Your task to perform on an android device: Open my contact list Image 0: 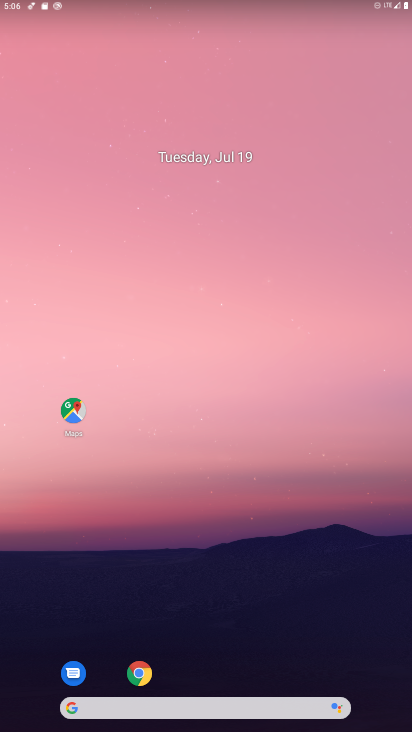
Step 0: press home button
Your task to perform on an android device: Open my contact list Image 1: 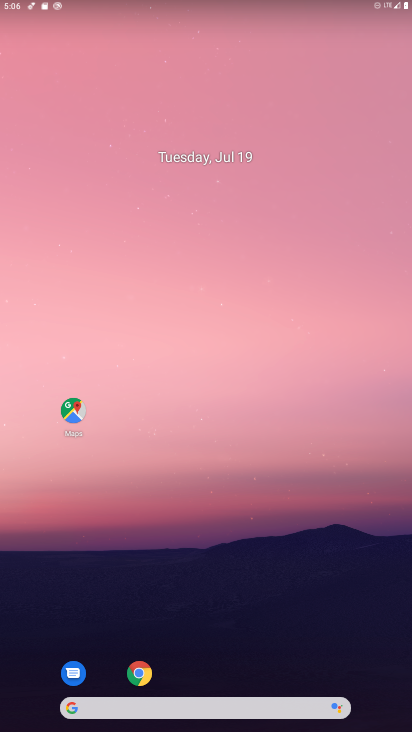
Step 1: click (230, 90)
Your task to perform on an android device: Open my contact list Image 2: 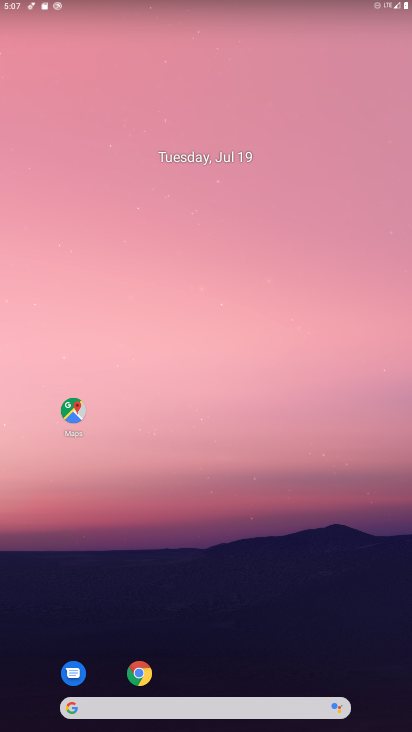
Step 2: drag from (220, 672) to (212, 293)
Your task to perform on an android device: Open my contact list Image 3: 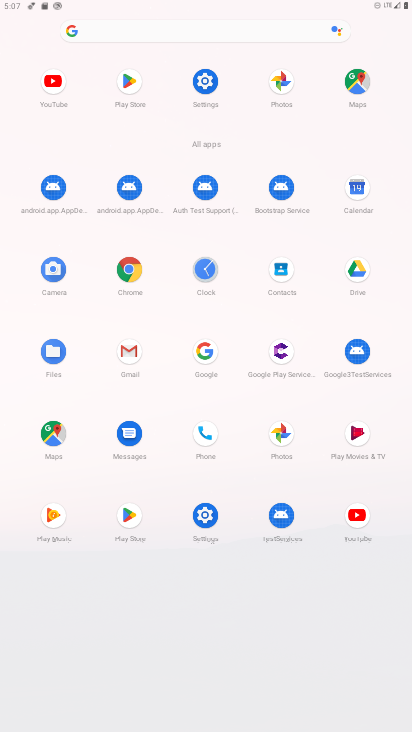
Step 3: click (280, 269)
Your task to perform on an android device: Open my contact list Image 4: 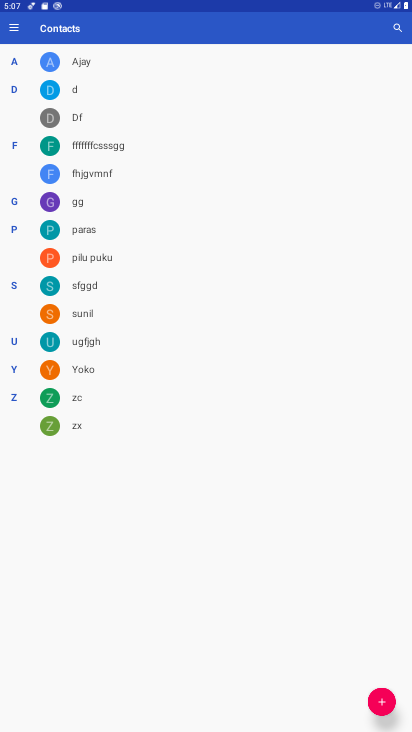
Step 4: task complete